Your task to perform on an android device: Show me recent news Image 0: 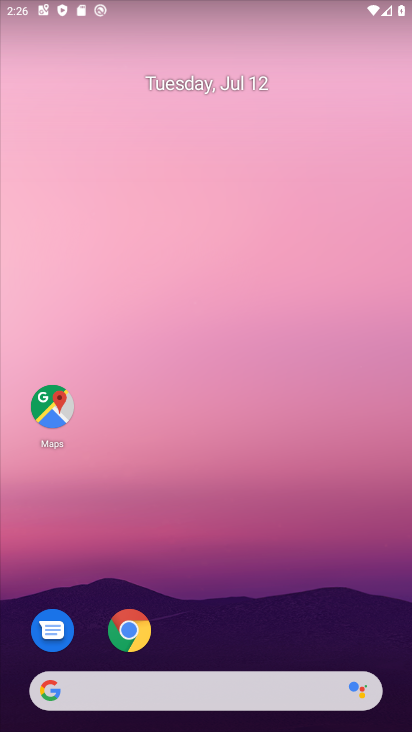
Step 0: drag from (0, 276) to (387, 283)
Your task to perform on an android device: Show me recent news Image 1: 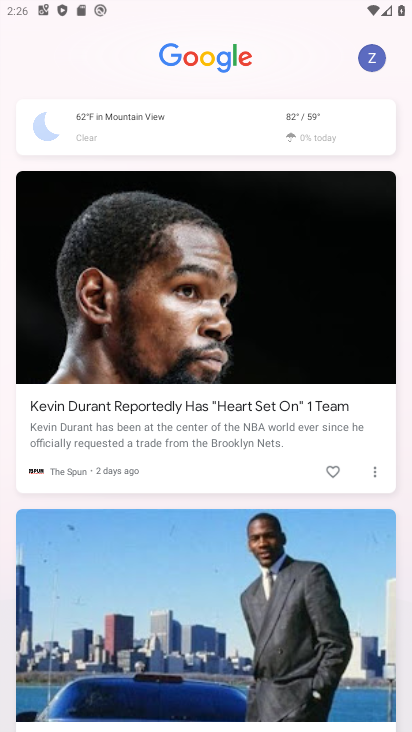
Step 1: task complete